Your task to perform on an android device: Open calendar and show me the first week of next month Image 0: 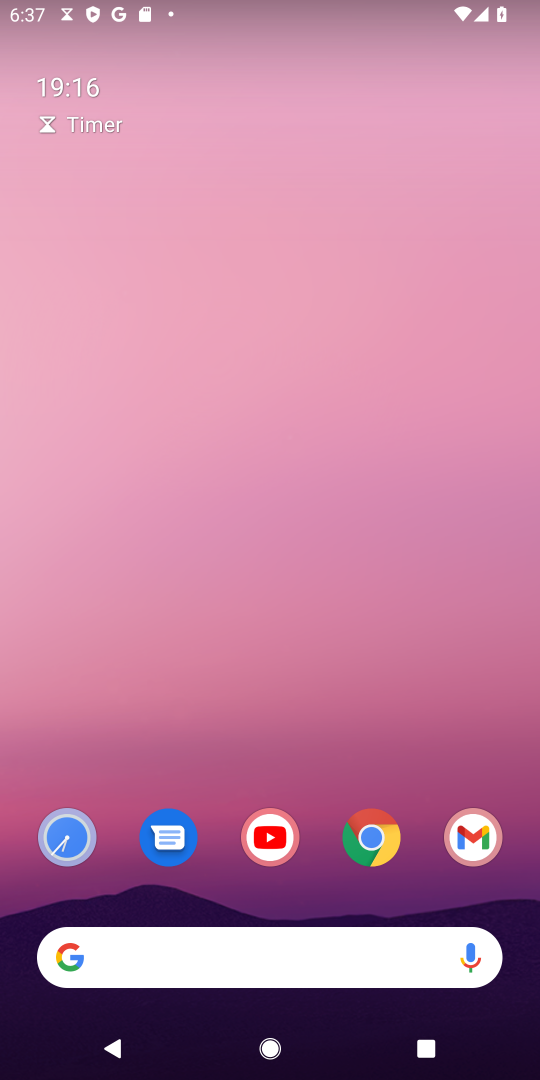
Step 0: drag from (324, 881) to (369, 115)
Your task to perform on an android device: Open calendar and show me the first week of next month Image 1: 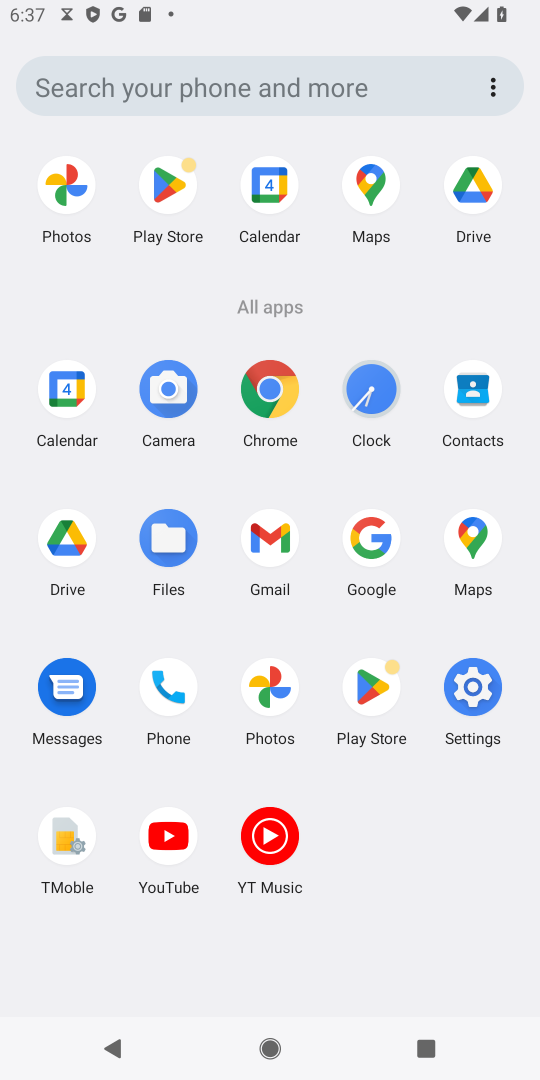
Step 1: click (61, 379)
Your task to perform on an android device: Open calendar and show me the first week of next month Image 2: 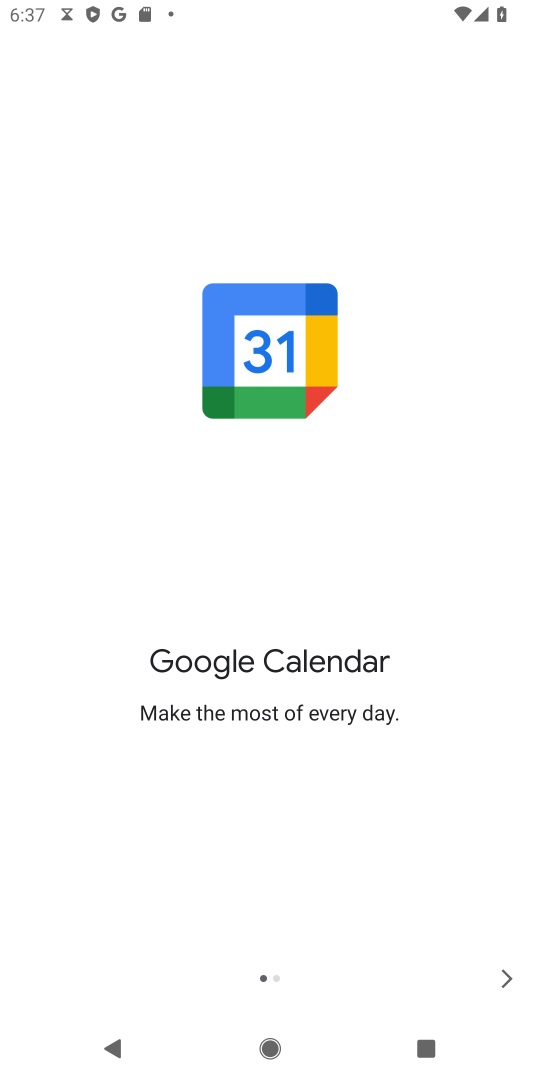
Step 2: click (496, 970)
Your task to perform on an android device: Open calendar and show me the first week of next month Image 3: 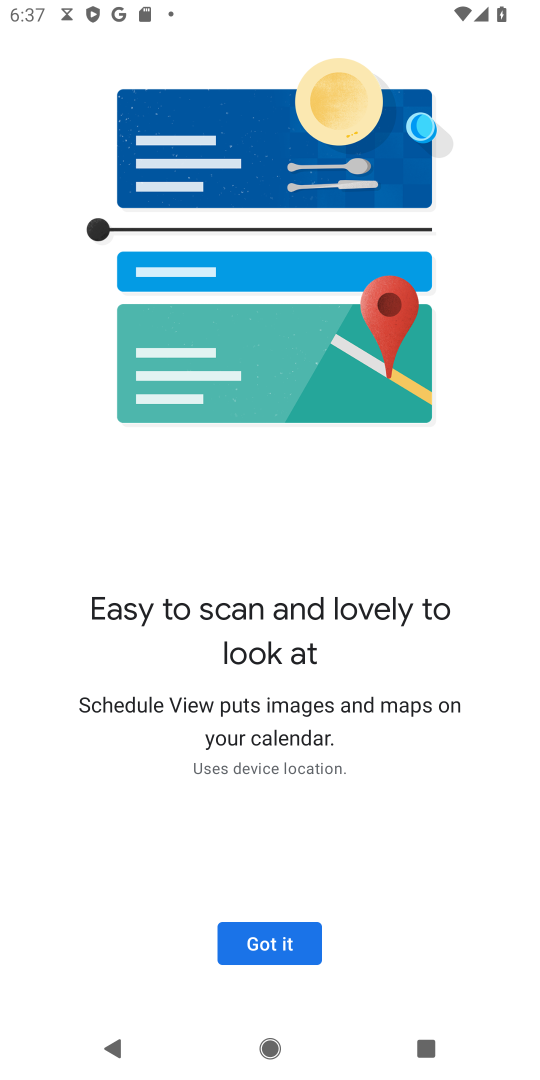
Step 3: click (265, 943)
Your task to perform on an android device: Open calendar and show me the first week of next month Image 4: 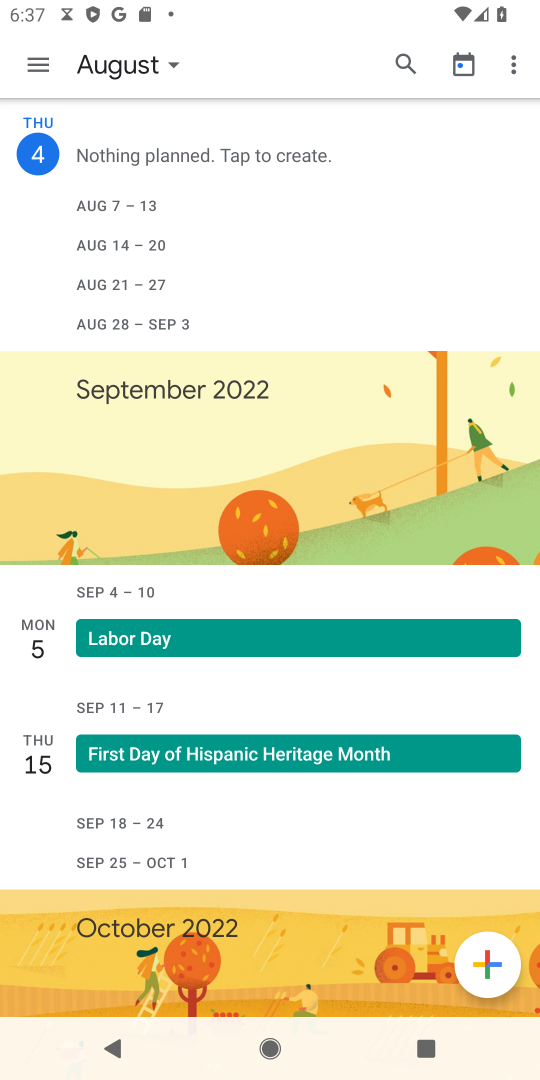
Step 4: click (168, 54)
Your task to perform on an android device: Open calendar and show me the first week of next month Image 5: 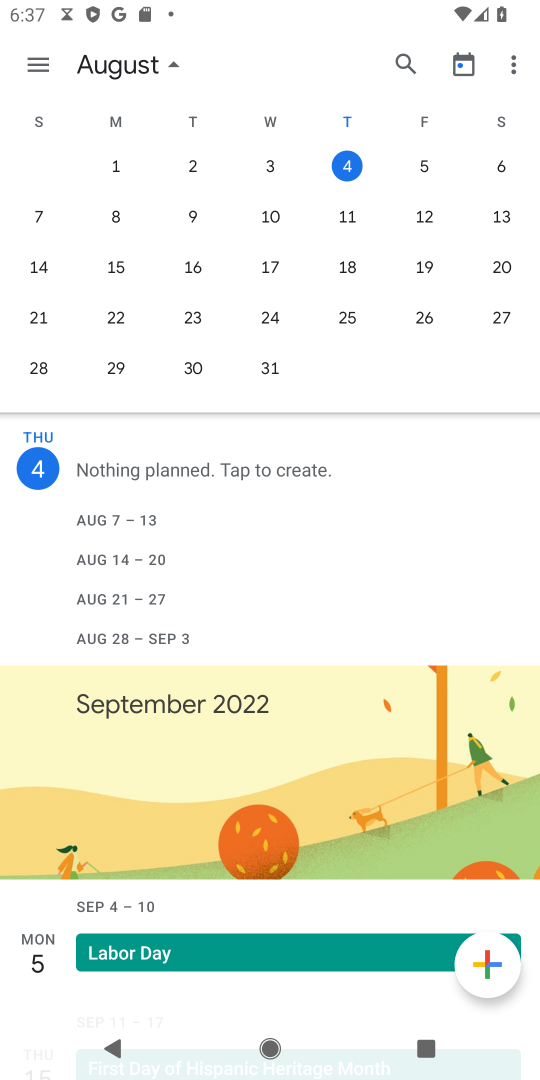
Step 5: drag from (488, 243) to (8, 304)
Your task to perform on an android device: Open calendar and show me the first week of next month Image 6: 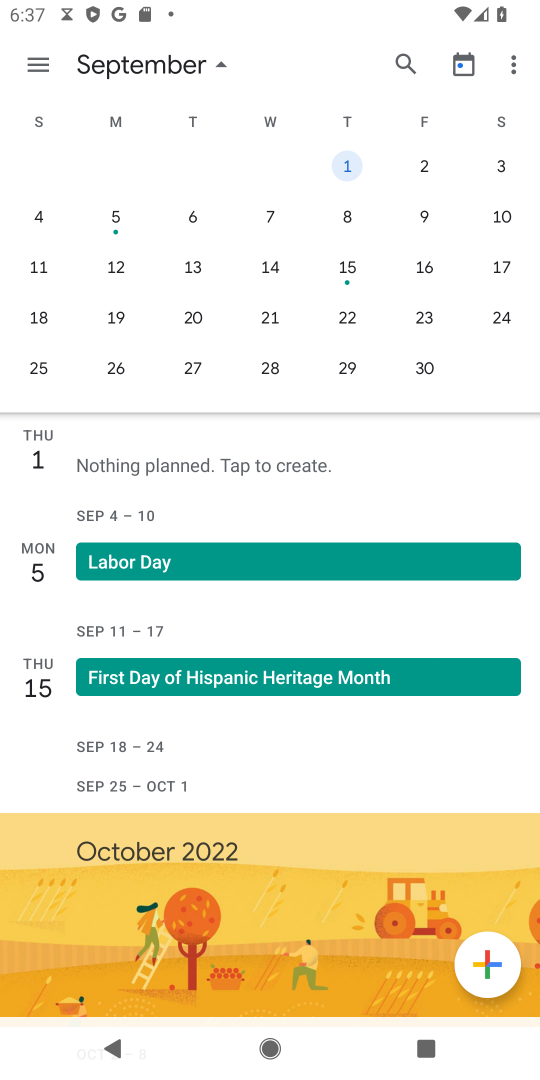
Step 6: click (42, 218)
Your task to perform on an android device: Open calendar and show me the first week of next month Image 7: 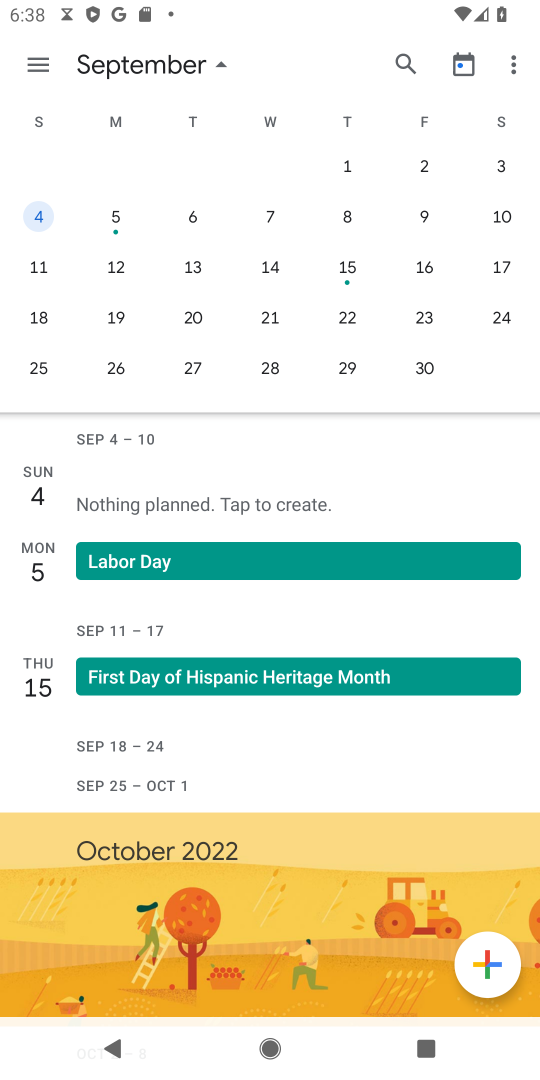
Step 7: click (40, 70)
Your task to perform on an android device: Open calendar and show me the first week of next month Image 8: 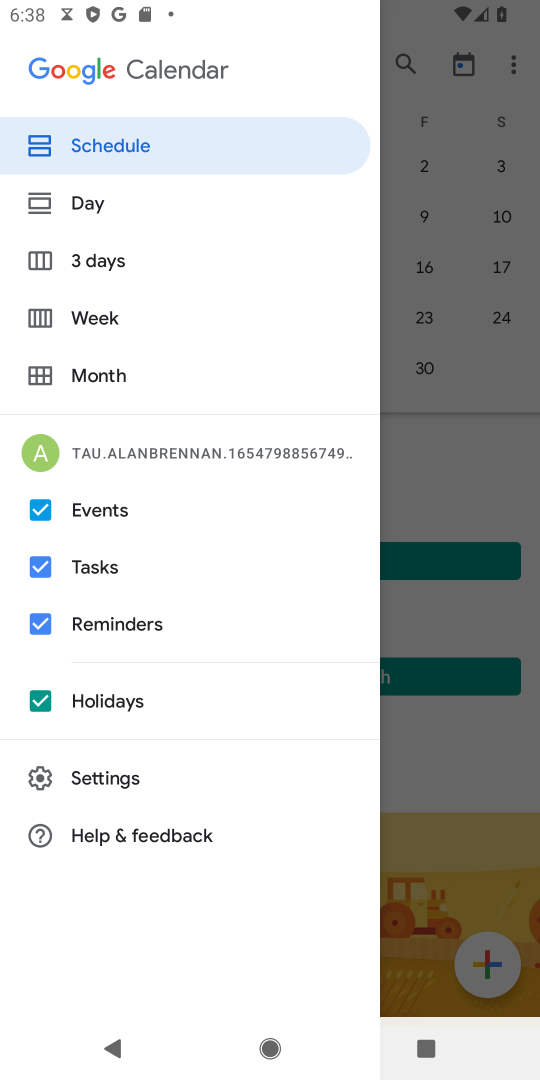
Step 8: click (104, 311)
Your task to perform on an android device: Open calendar and show me the first week of next month Image 9: 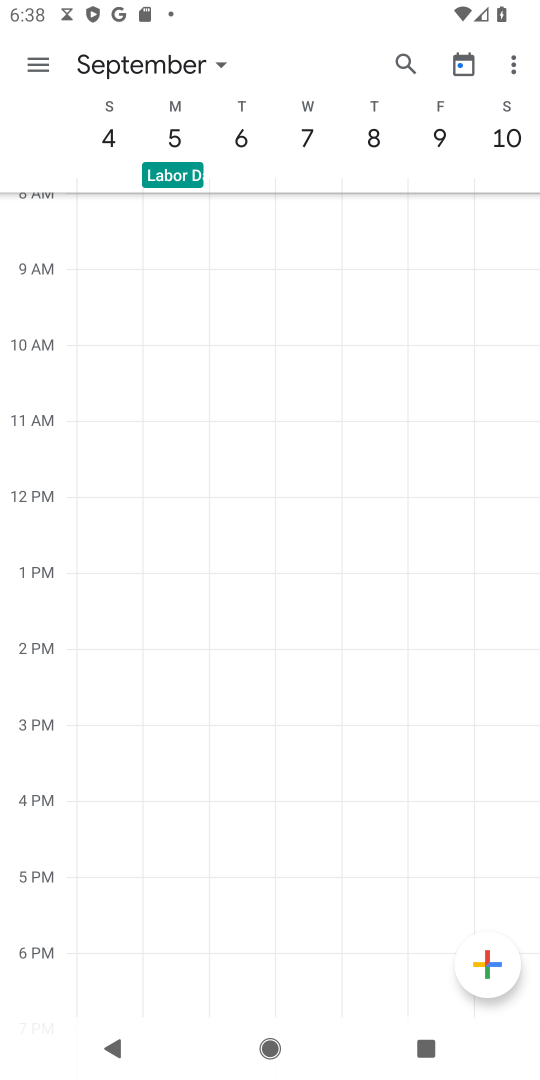
Step 9: task complete